Your task to perform on an android device: toggle translation in the chrome app Image 0: 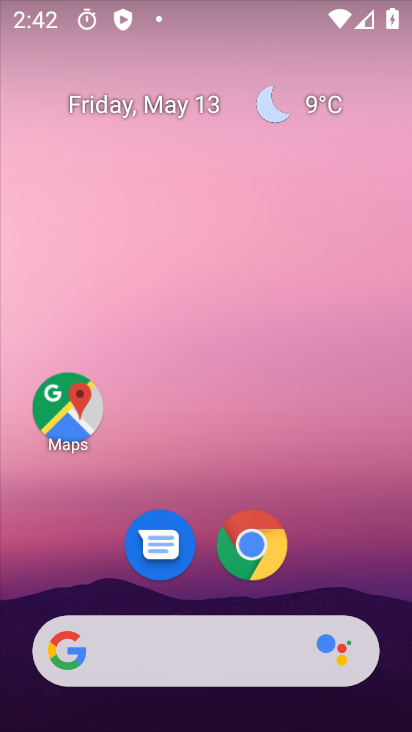
Step 0: click (230, 559)
Your task to perform on an android device: toggle translation in the chrome app Image 1: 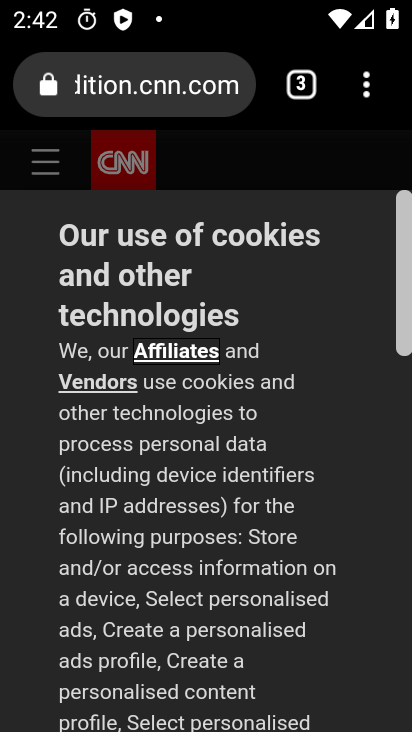
Step 1: drag from (362, 82) to (98, 593)
Your task to perform on an android device: toggle translation in the chrome app Image 2: 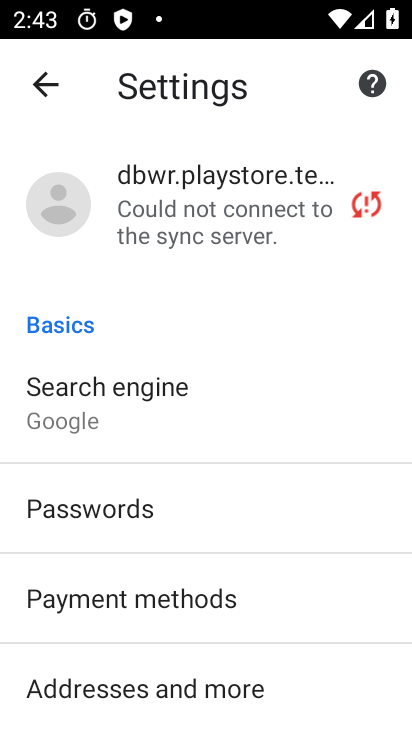
Step 2: drag from (310, 614) to (333, 218)
Your task to perform on an android device: toggle translation in the chrome app Image 3: 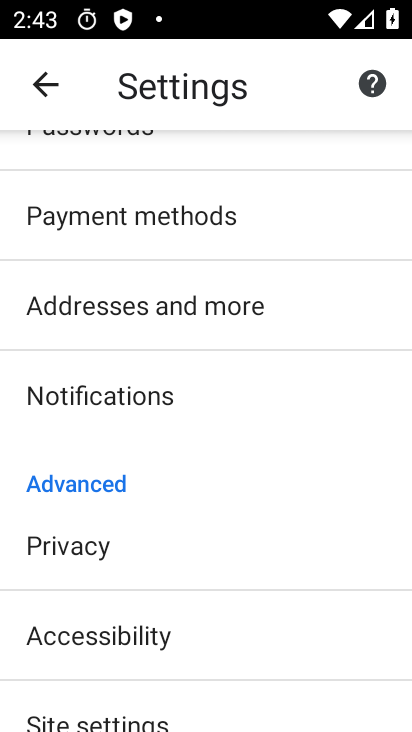
Step 3: drag from (262, 657) to (277, 380)
Your task to perform on an android device: toggle translation in the chrome app Image 4: 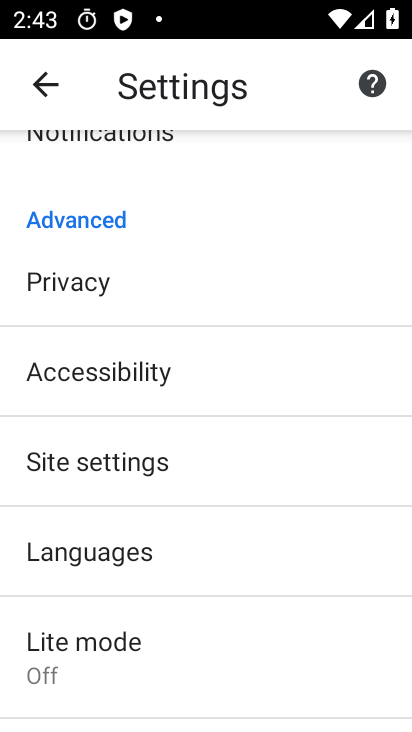
Step 4: click (83, 555)
Your task to perform on an android device: toggle translation in the chrome app Image 5: 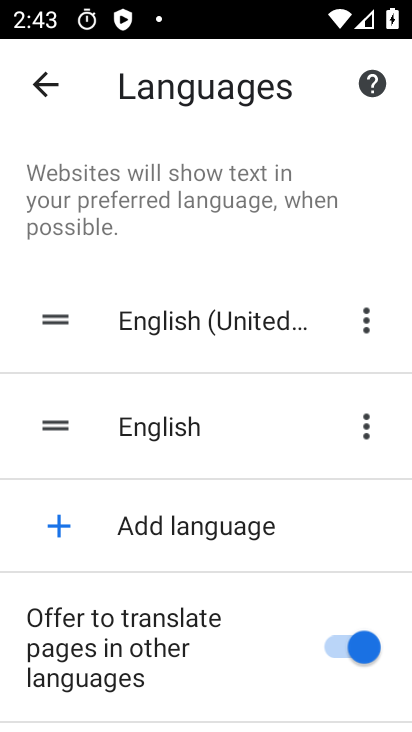
Step 5: click (352, 639)
Your task to perform on an android device: toggle translation in the chrome app Image 6: 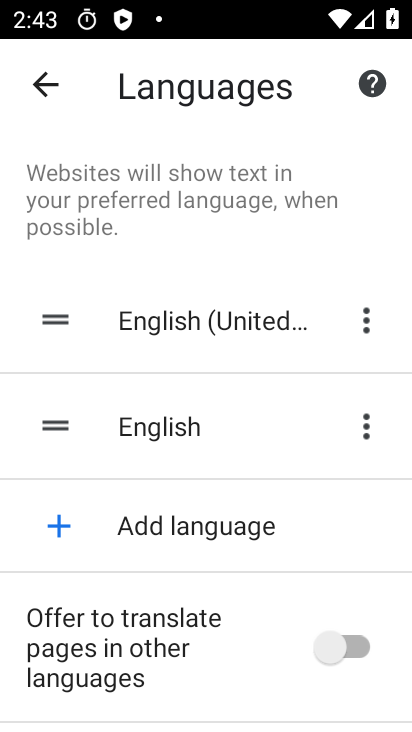
Step 6: task complete